Your task to perform on an android device: move an email to a new category in the gmail app Image 0: 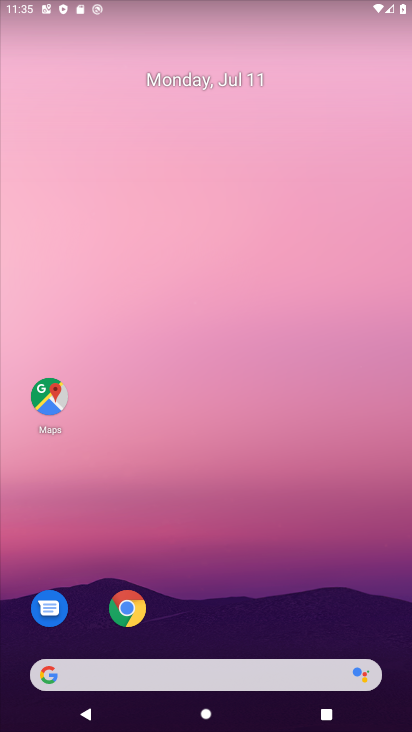
Step 0: drag from (206, 631) to (261, 95)
Your task to perform on an android device: move an email to a new category in the gmail app Image 1: 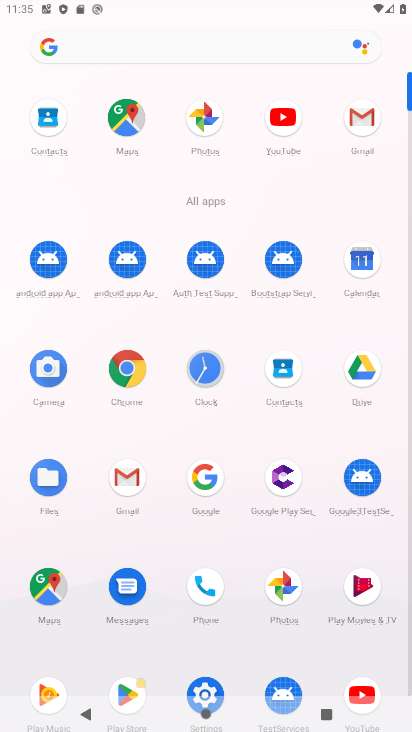
Step 1: click (371, 111)
Your task to perform on an android device: move an email to a new category in the gmail app Image 2: 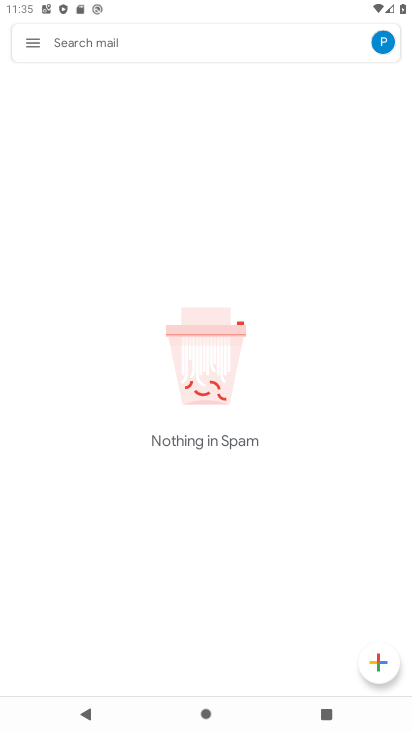
Step 2: click (48, 45)
Your task to perform on an android device: move an email to a new category in the gmail app Image 3: 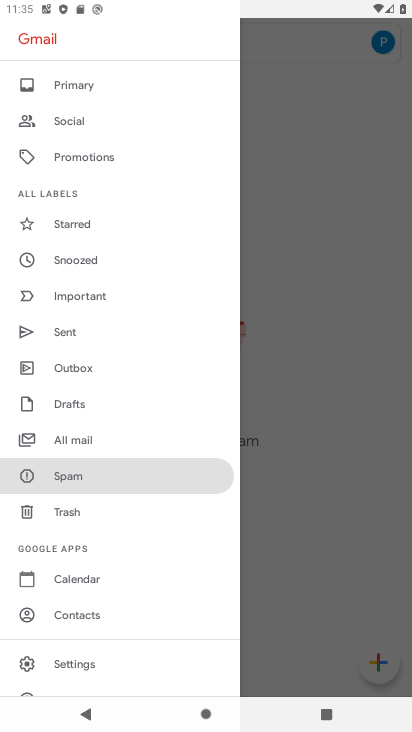
Step 3: task complete